Your task to perform on an android device: Open Chrome and go to settings Image 0: 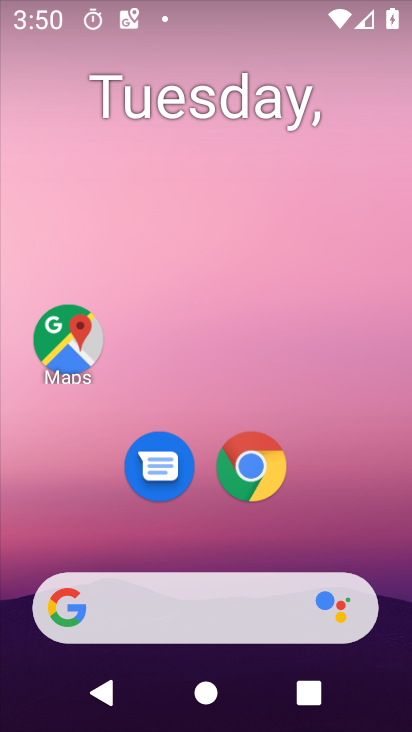
Step 0: drag from (380, 532) to (374, 172)
Your task to perform on an android device: Open Chrome and go to settings Image 1: 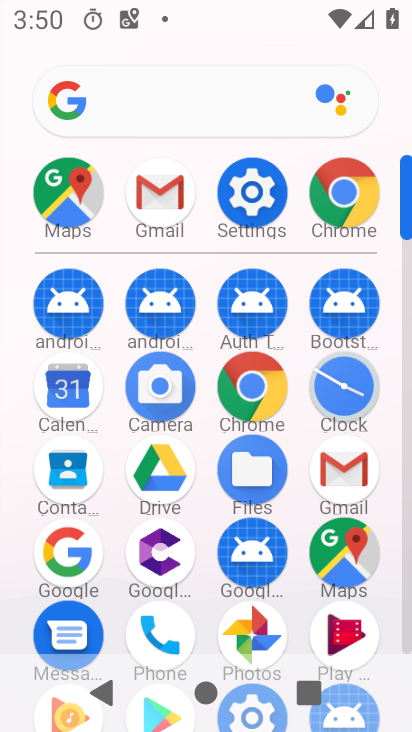
Step 1: click (262, 389)
Your task to perform on an android device: Open Chrome and go to settings Image 2: 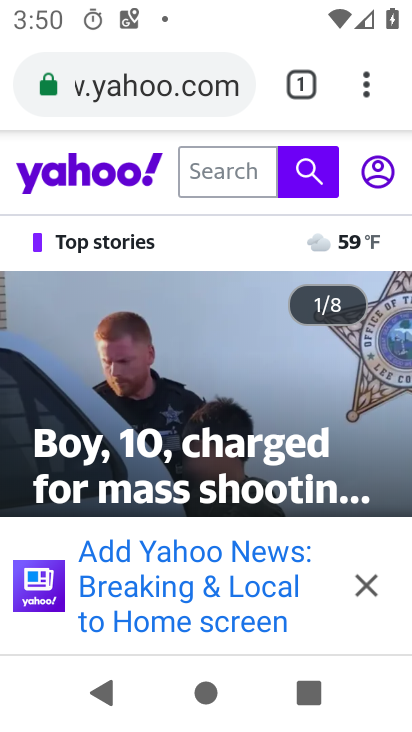
Step 2: click (365, 101)
Your task to perform on an android device: Open Chrome and go to settings Image 3: 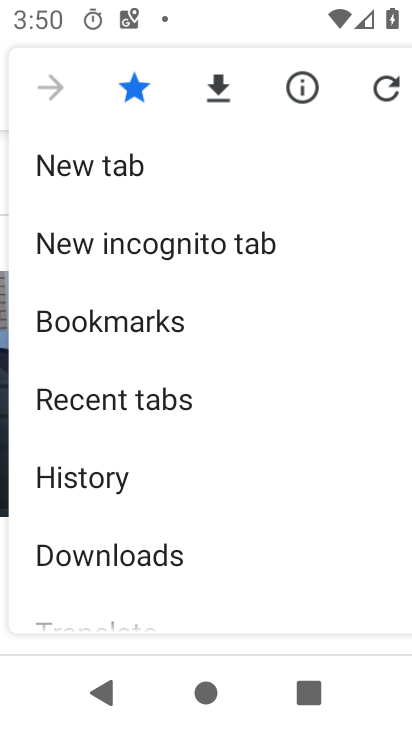
Step 3: drag from (340, 413) to (333, 291)
Your task to perform on an android device: Open Chrome and go to settings Image 4: 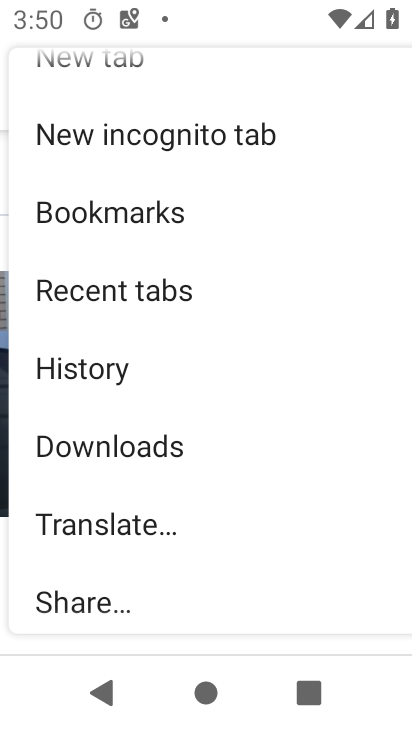
Step 4: drag from (319, 450) to (317, 291)
Your task to perform on an android device: Open Chrome and go to settings Image 5: 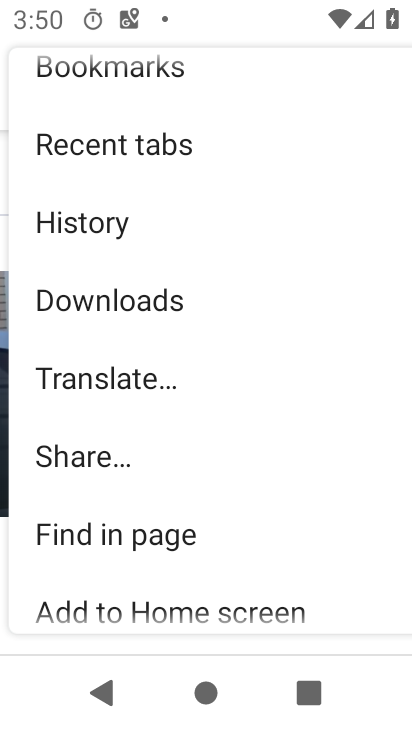
Step 5: drag from (313, 475) to (317, 308)
Your task to perform on an android device: Open Chrome and go to settings Image 6: 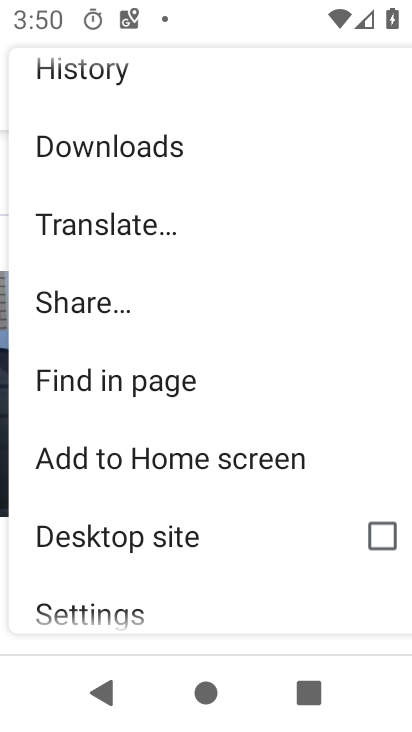
Step 6: drag from (298, 529) to (297, 357)
Your task to perform on an android device: Open Chrome and go to settings Image 7: 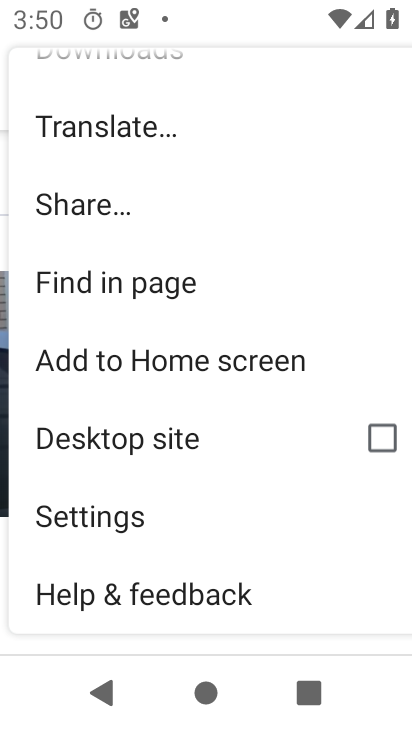
Step 7: click (149, 520)
Your task to perform on an android device: Open Chrome and go to settings Image 8: 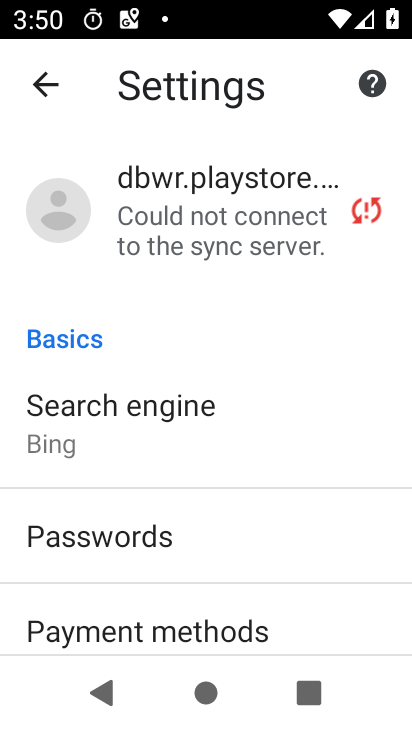
Step 8: task complete